Your task to perform on an android device: Open calendar and show me the third week of next month Image 0: 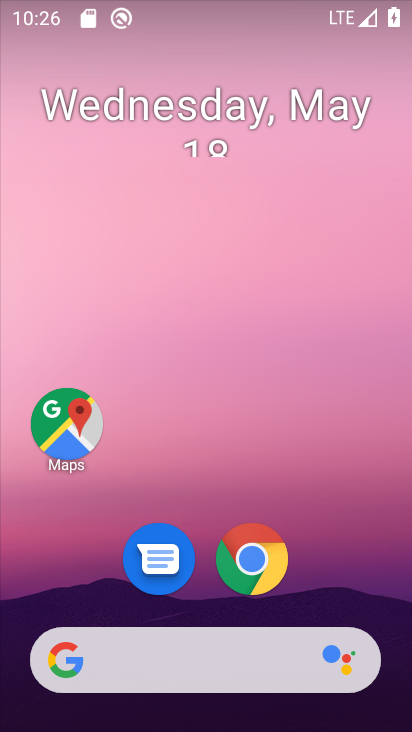
Step 0: drag from (203, 585) to (212, 64)
Your task to perform on an android device: Open calendar and show me the third week of next month Image 1: 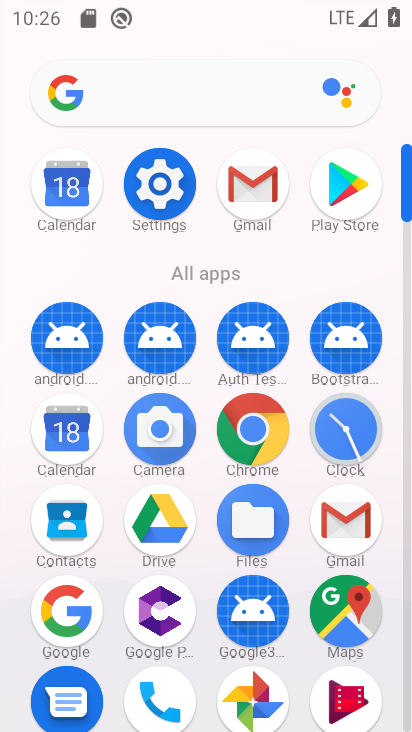
Step 1: click (62, 434)
Your task to perform on an android device: Open calendar and show me the third week of next month Image 2: 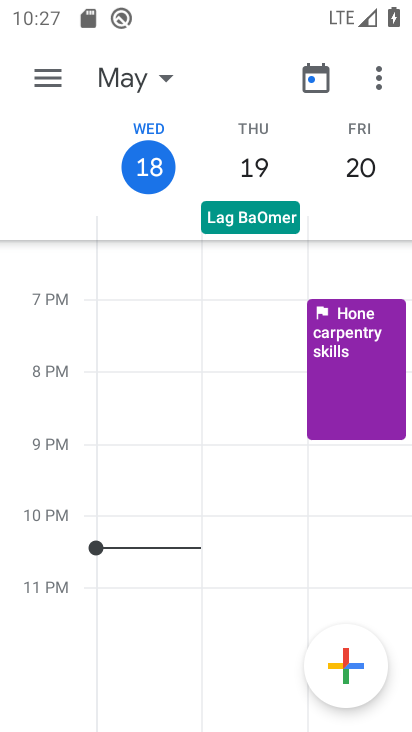
Step 2: click (61, 76)
Your task to perform on an android device: Open calendar and show me the third week of next month Image 3: 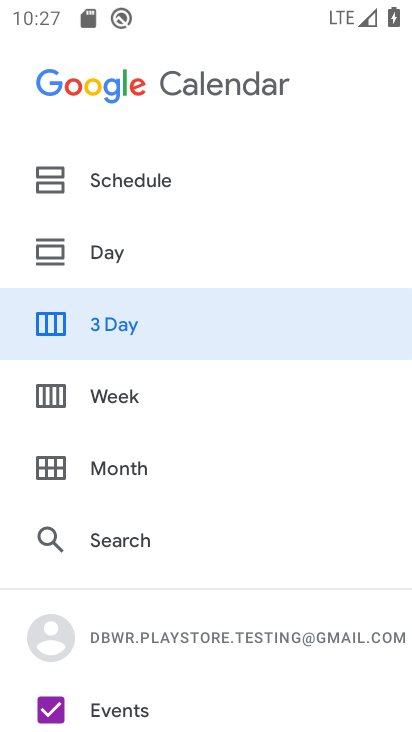
Step 3: click (128, 390)
Your task to perform on an android device: Open calendar and show me the third week of next month Image 4: 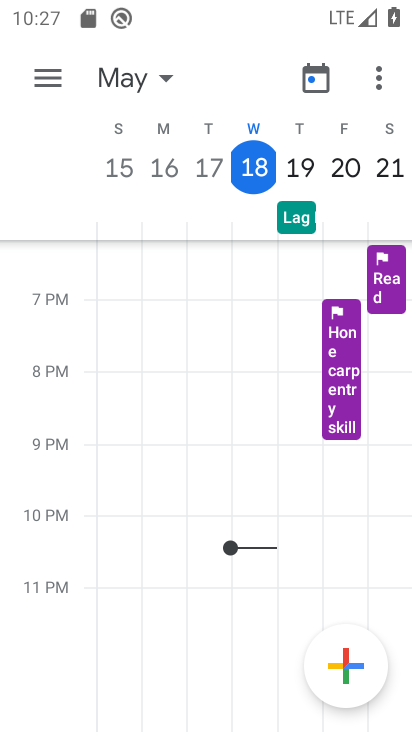
Step 4: task complete